Your task to perform on an android device: Open Reddit.com Image 0: 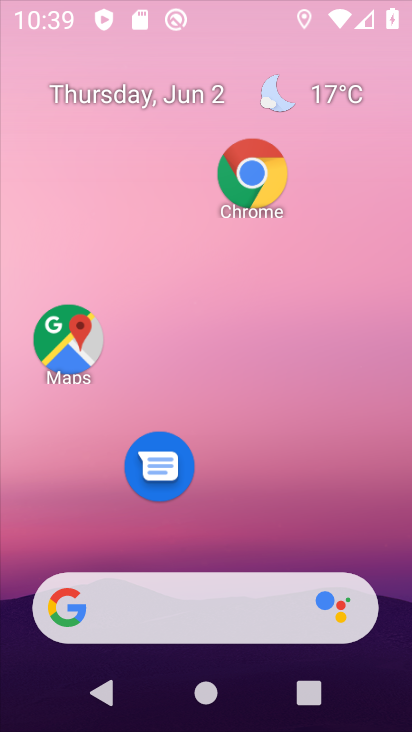
Step 0: press home button
Your task to perform on an android device: Open Reddit.com Image 1: 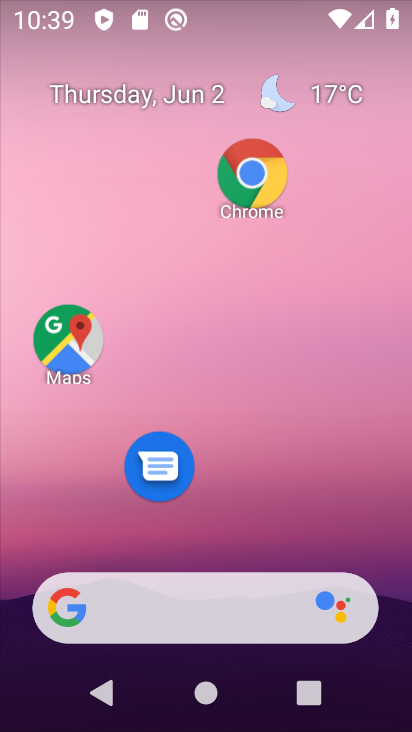
Step 1: click (54, 608)
Your task to perform on an android device: Open Reddit.com Image 2: 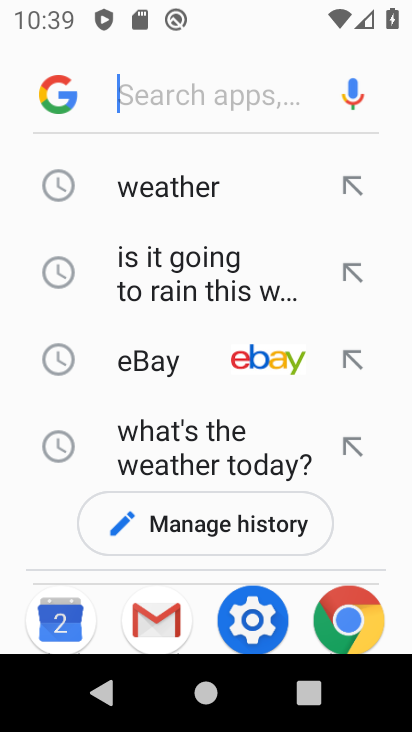
Step 2: type "Reddit.com"
Your task to perform on an android device: Open Reddit.com Image 3: 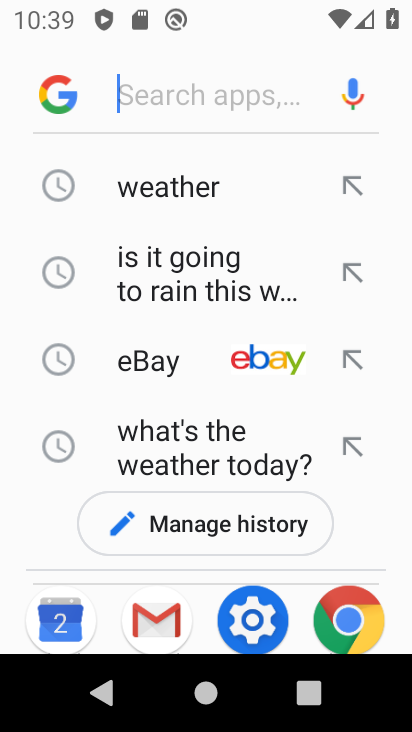
Step 3: click (179, 99)
Your task to perform on an android device: Open Reddit.com Image 4: 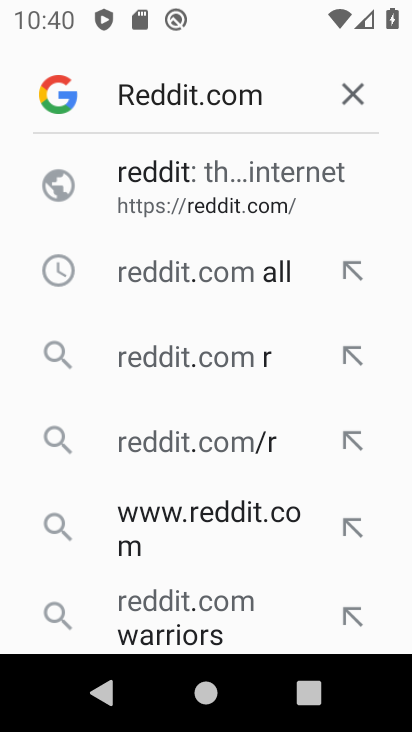
Step 4: click (170, 181)
Your task to perform on an android device: Open Reddit.com Image 5: 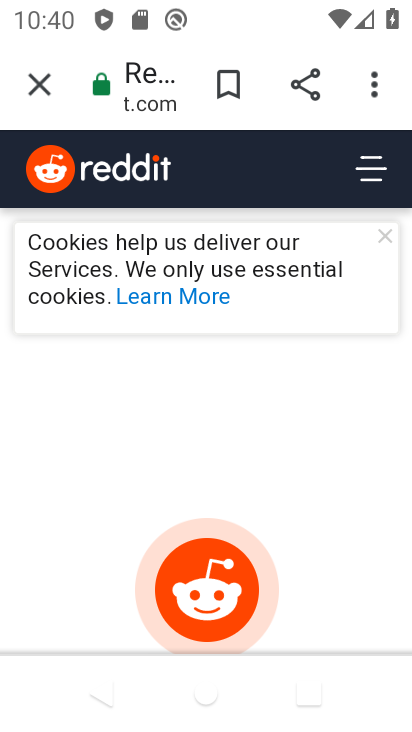
Step 5: task complete